Your task to perform on an android device: Set an alarm for 3pm Image 0: 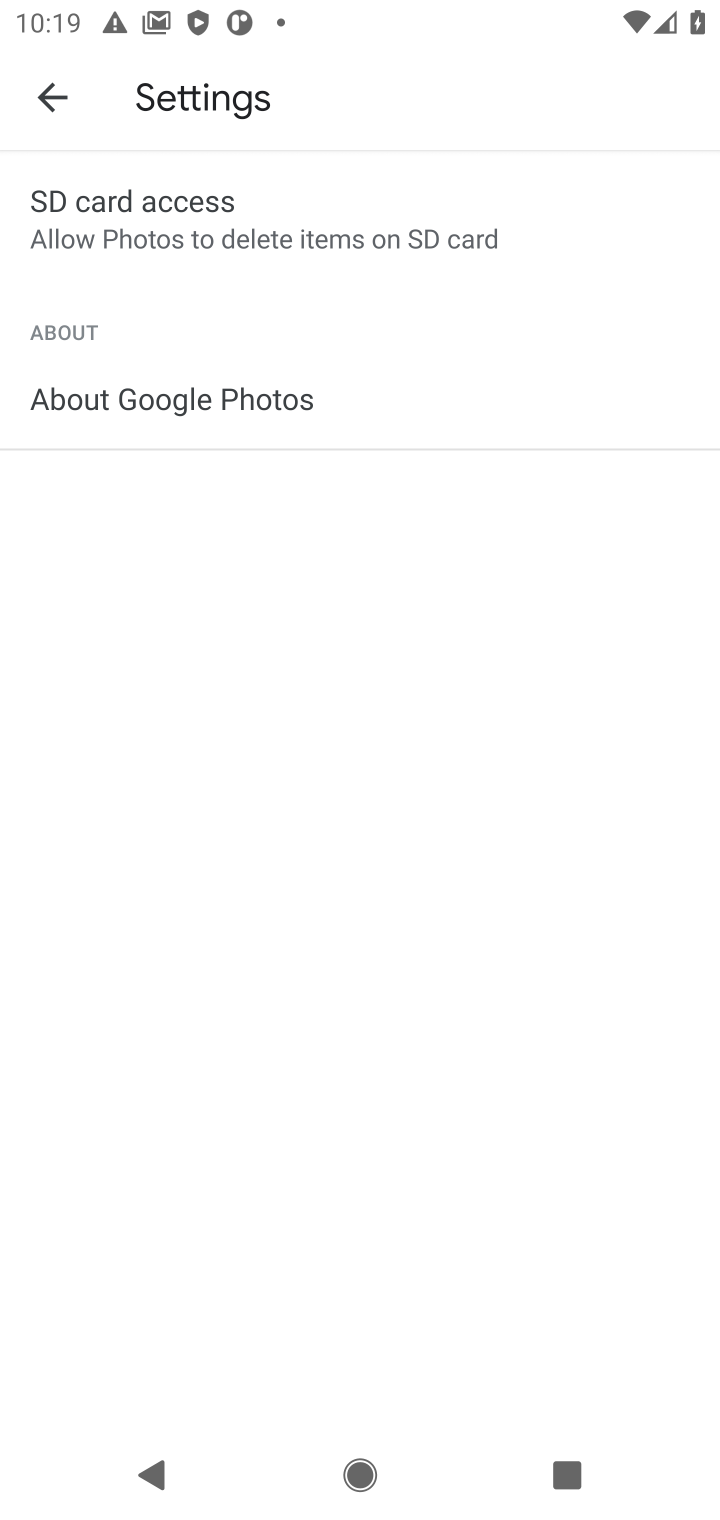
Step 0: press home button
Your task to perform on an android device: Set an alarm for 3pm Image 1: 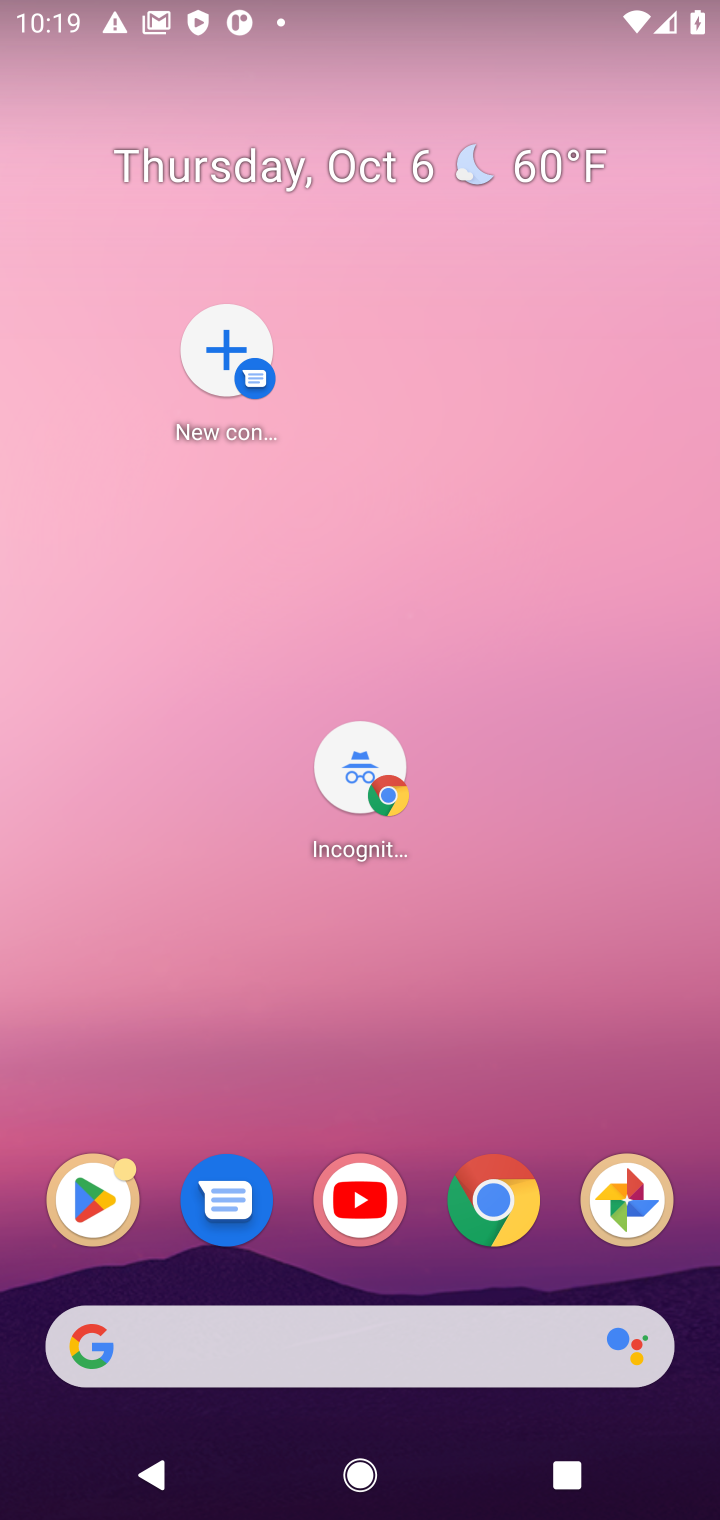
Step 1: drag from (395, 1211) to (634, 350)
Your task to perform on an android device: Set an alarm for 3pm Image 2: 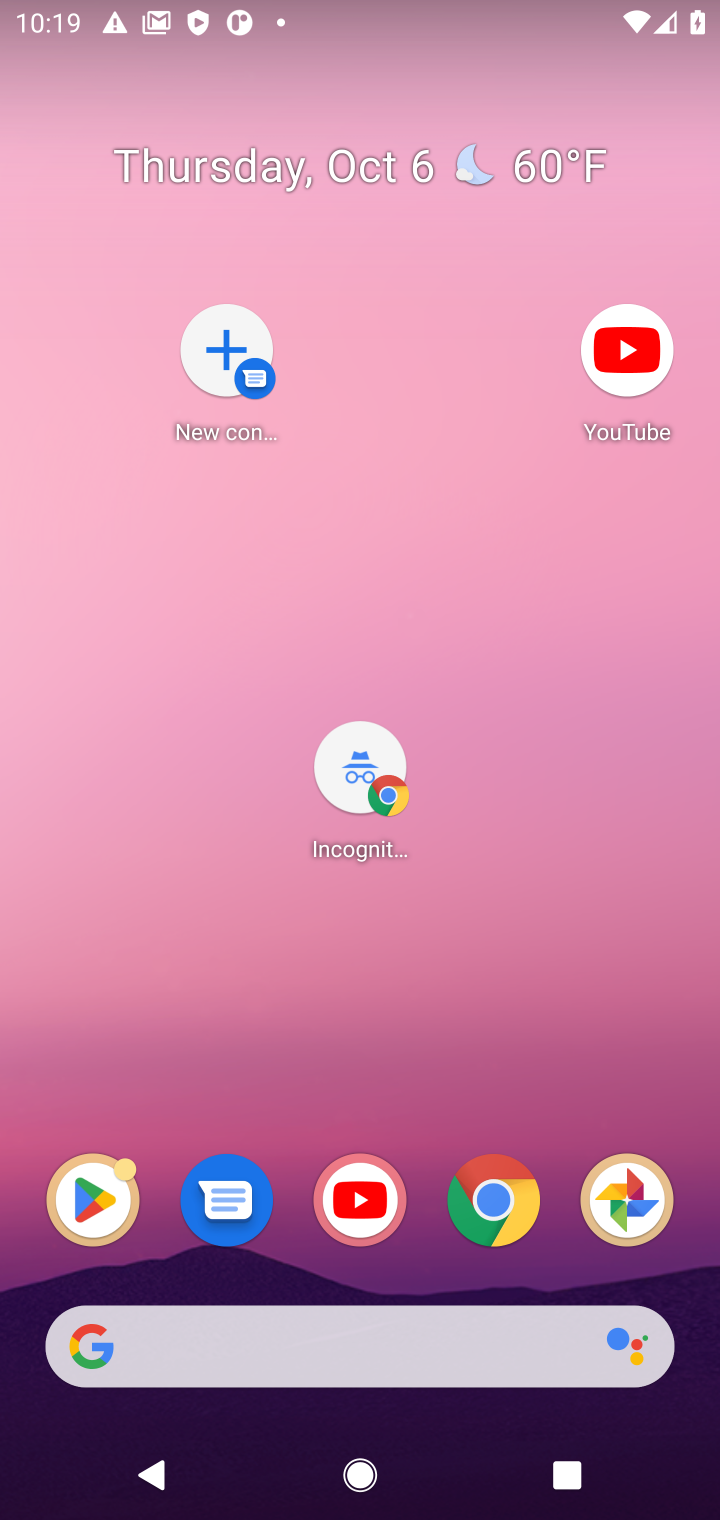
Step 2: drag from (292, 1326) to (415, 447)
Your task to perform on an android device: Set an alarm for 3pm Image 3: 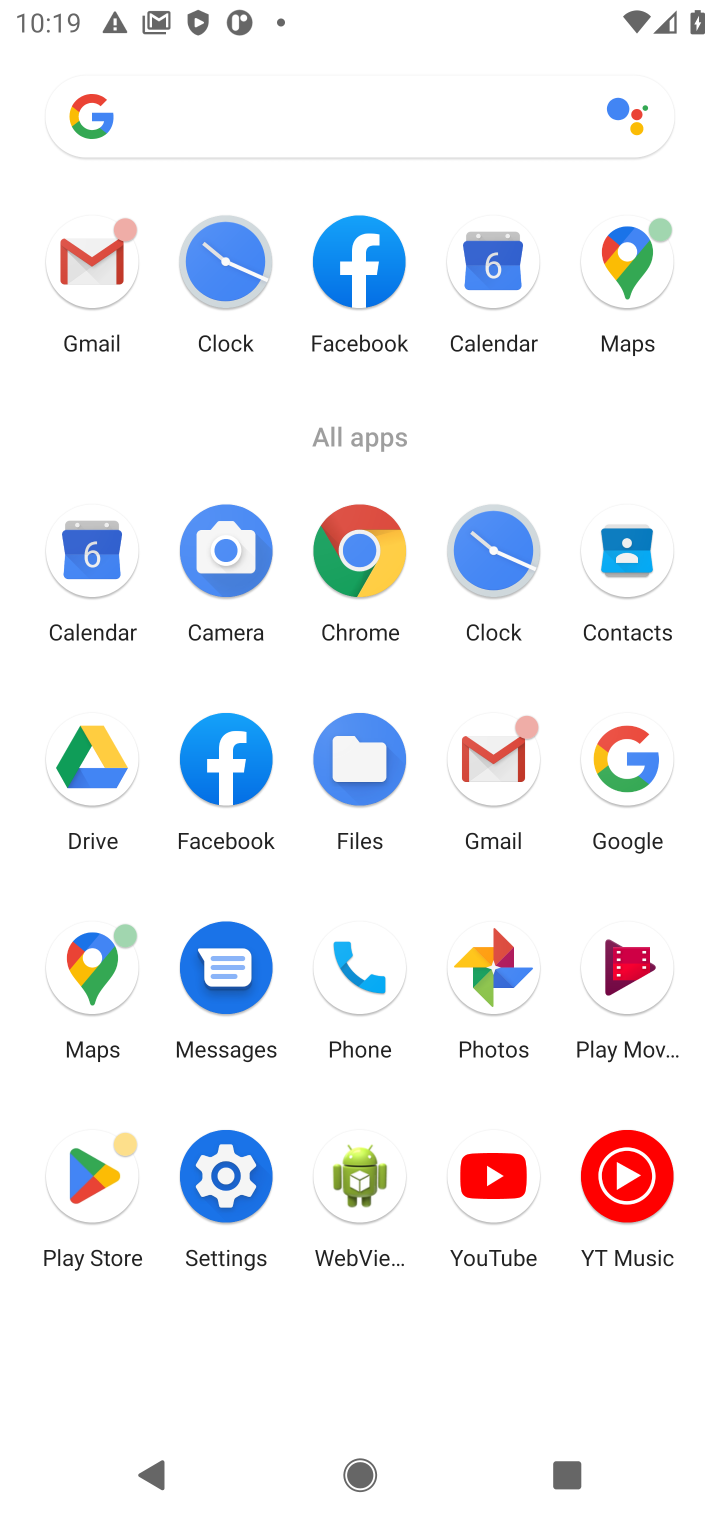
Step 3: click (518, 570)
Your task to perform on an android device: Set an alarm for 3pm Image 4: 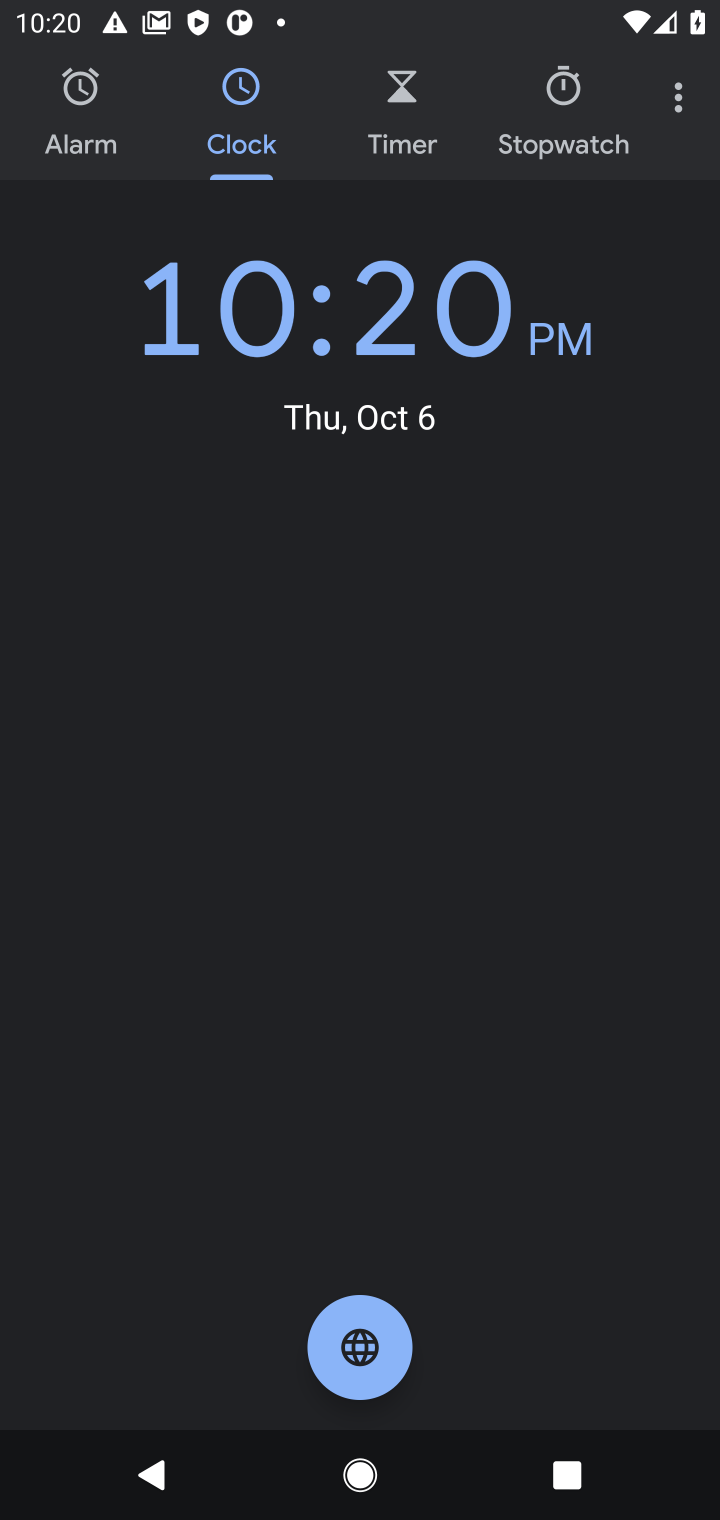
Step 4: click (114, 120)
Your task to perform on an android device: Set an alarm for 3pm Image 5: 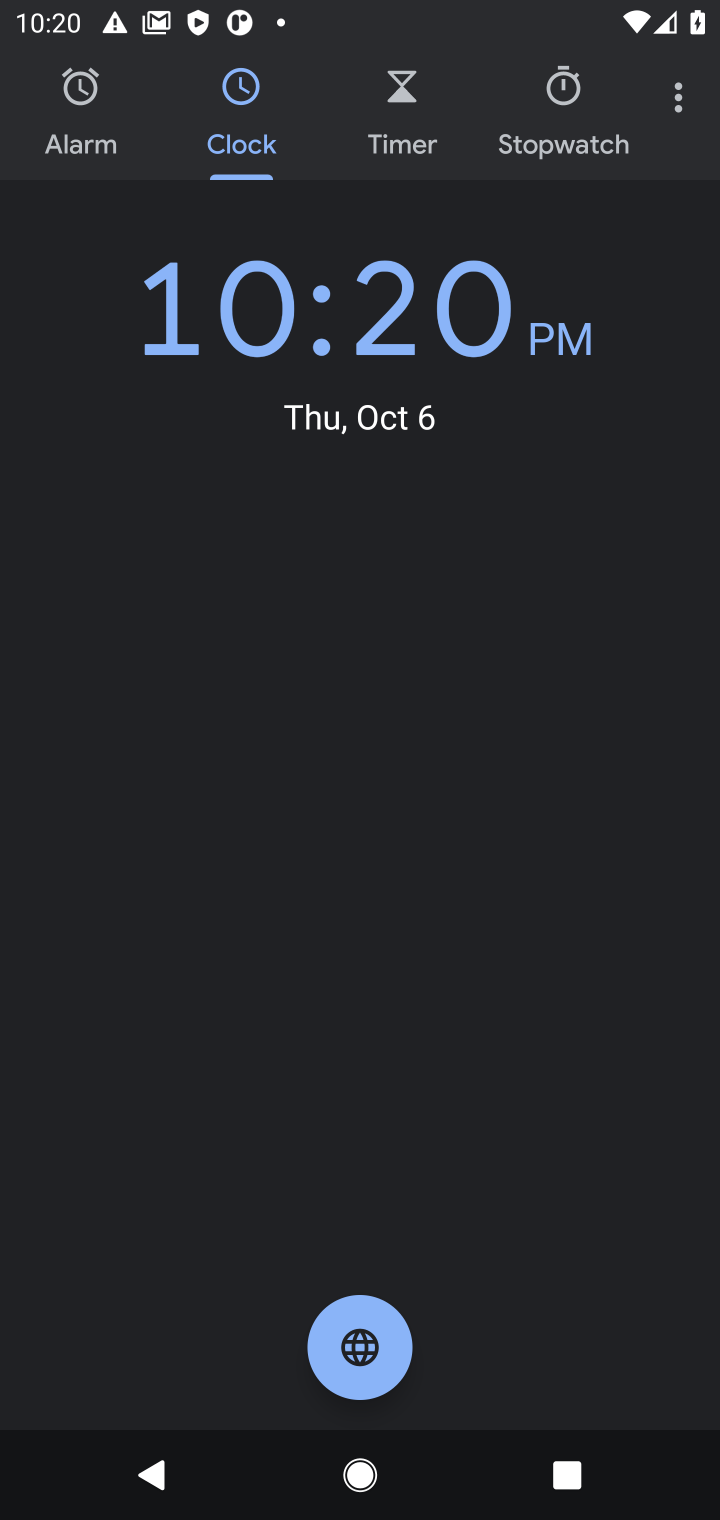
Step 5: click (102, 142)
Your task to perform on an android device: Set an alarm for 3pm Image 6: 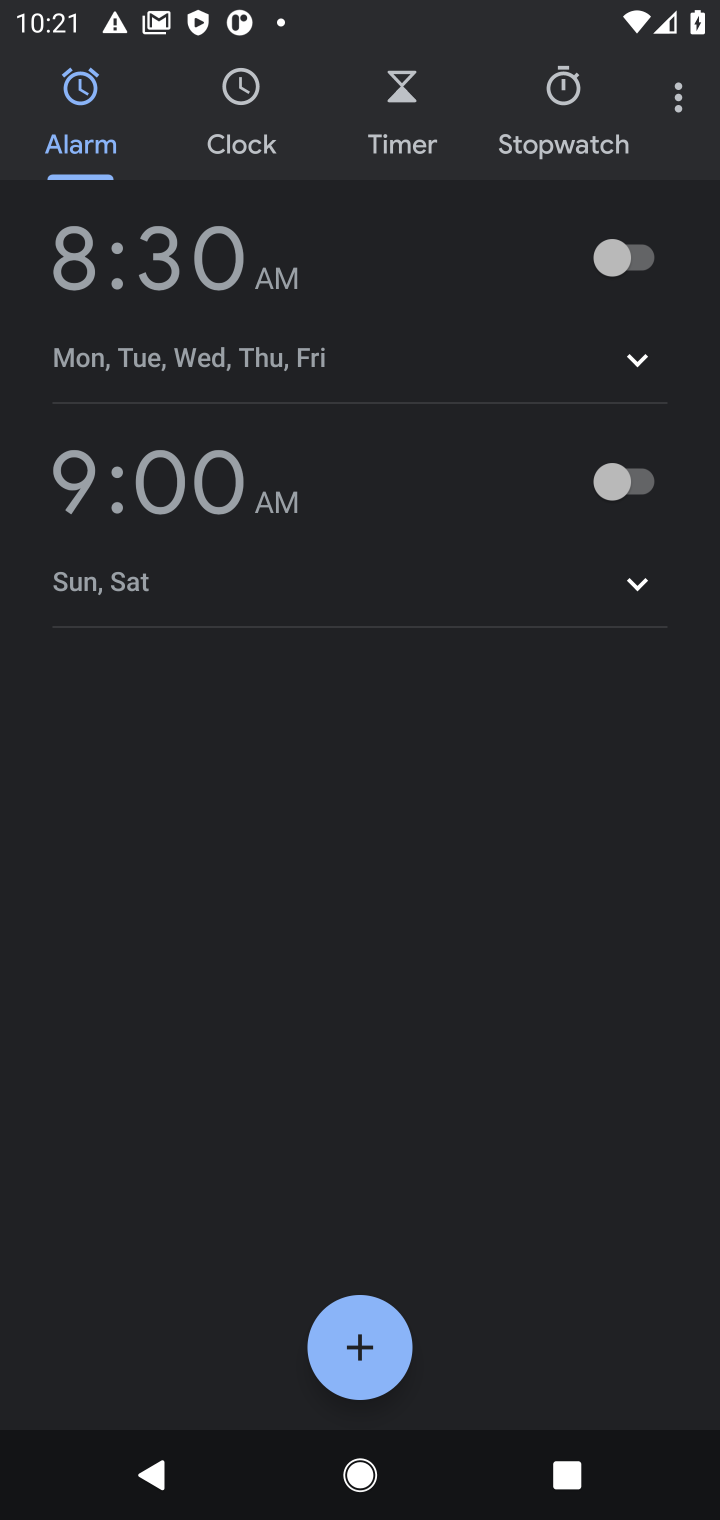
Step 6: click (349, 1333)
Your task to perform on an android device: Set an alarm for 3pm Image 7: 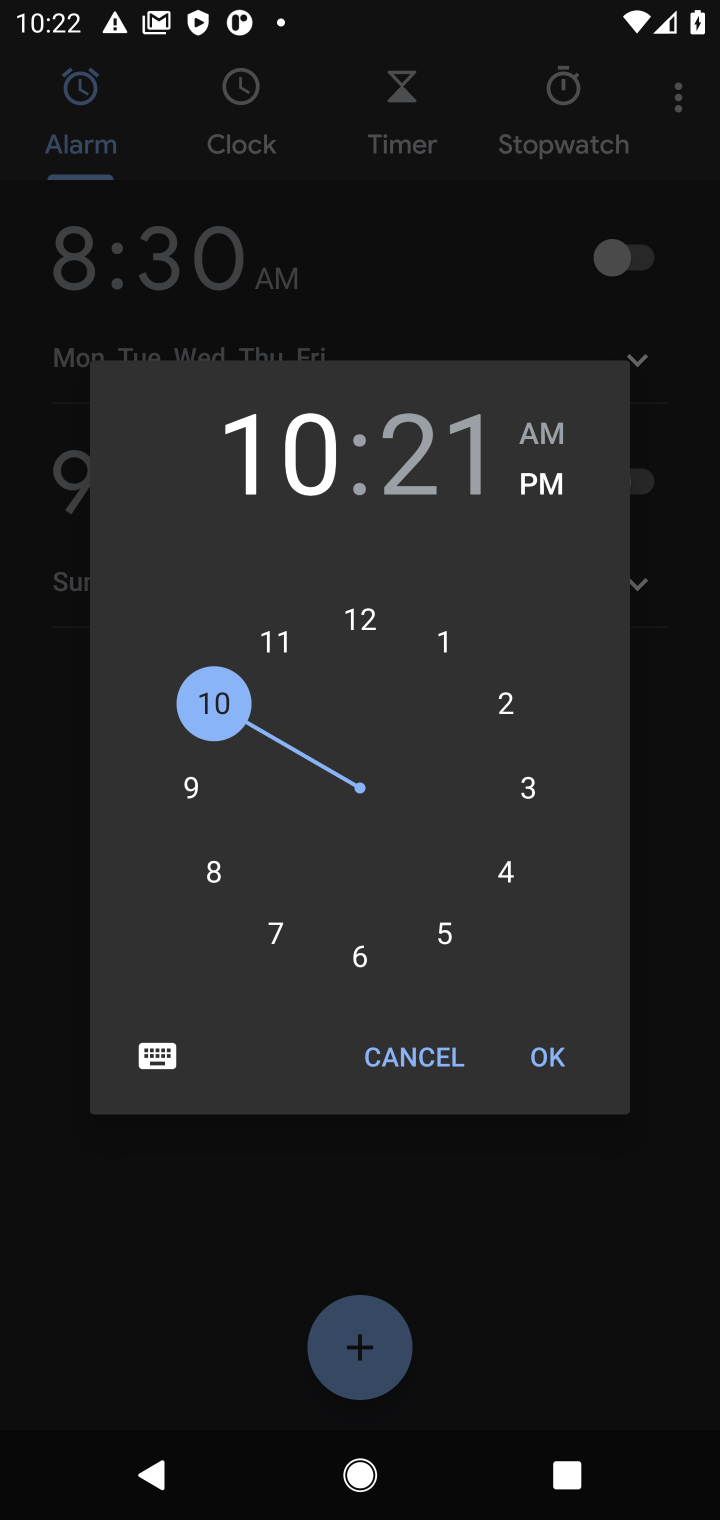
Step 7: click (536, 789)
Your task to perform on an android device: Set an alarm for 3pm Image 8: 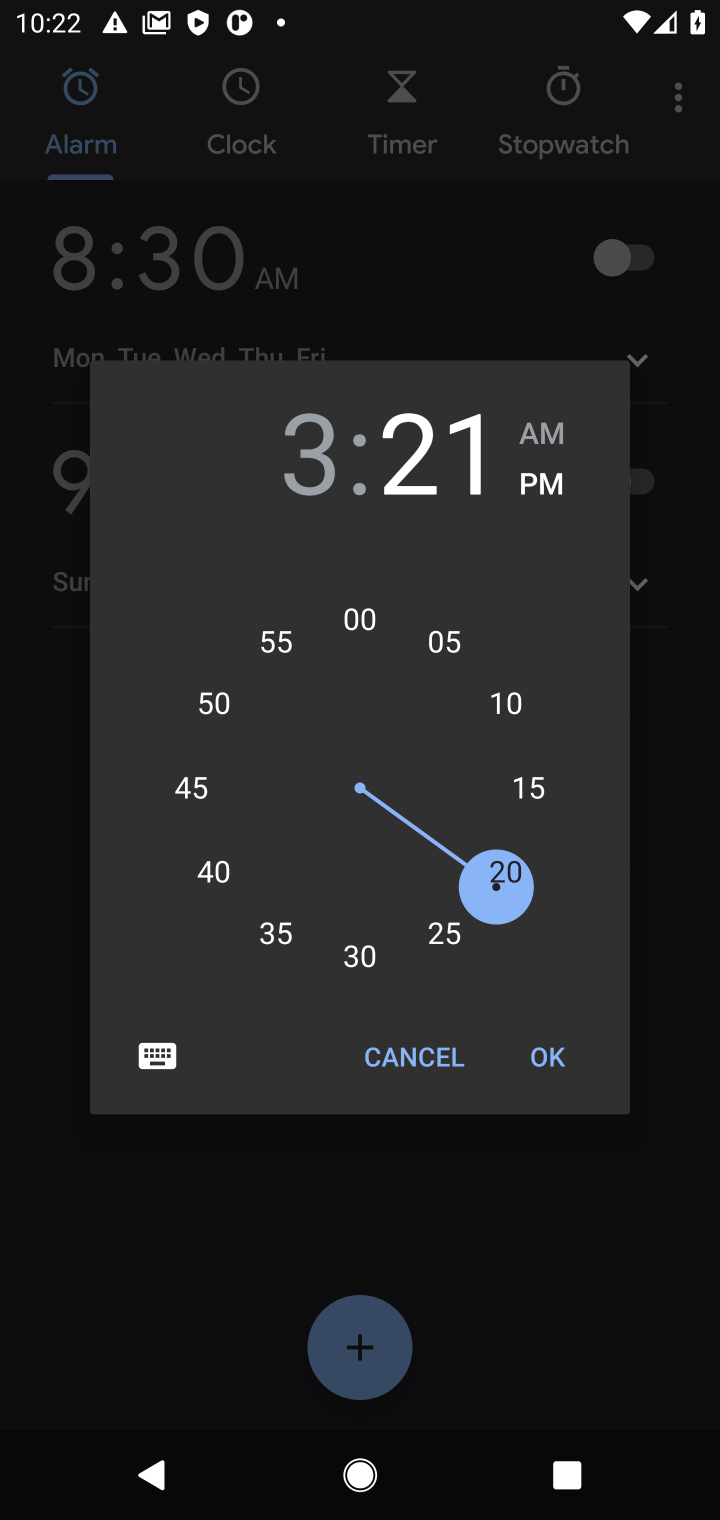
Step 8: click (383, 616)
Your task to perform on an android device: Set an alarm for 3pm Image 9: 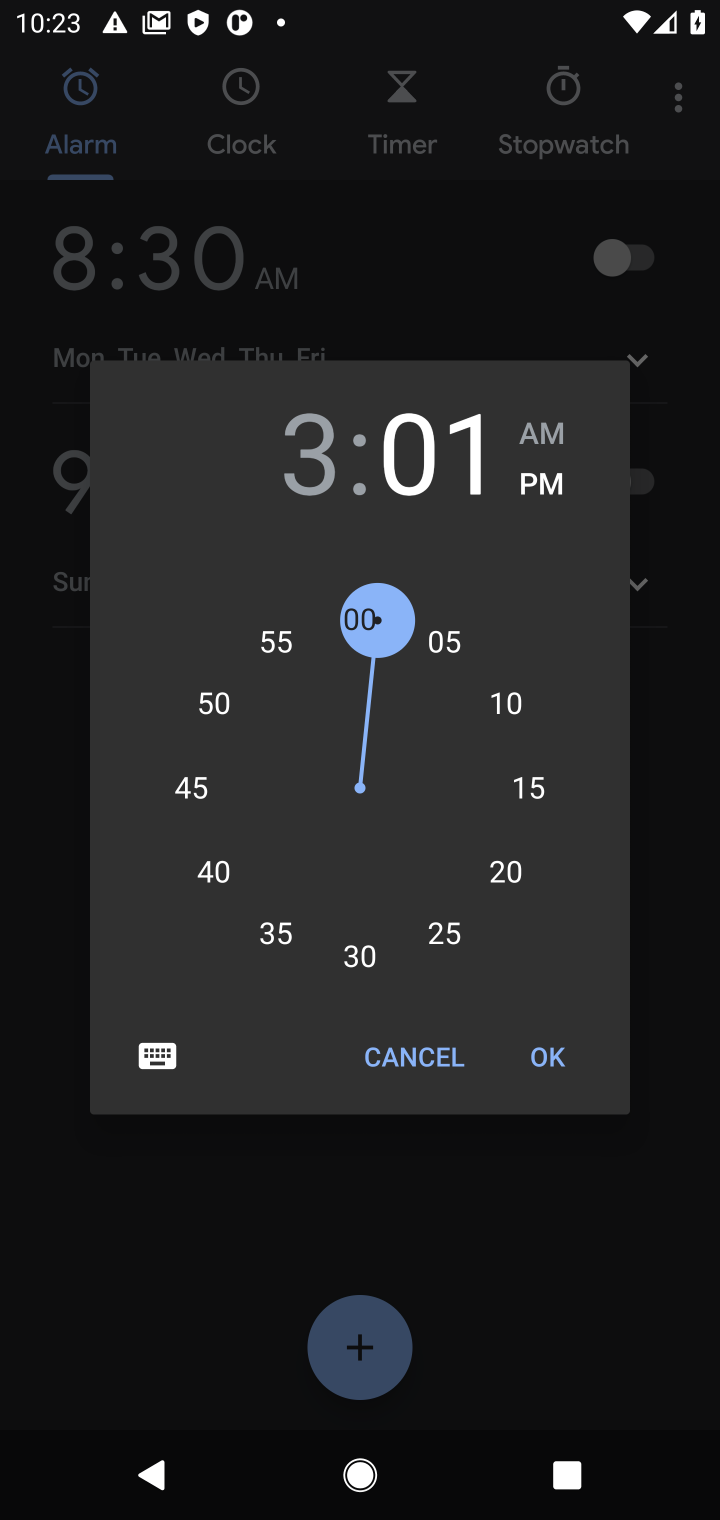
Step 9: click (361, 615)
Your task to perform on an android device: Set an alarm for 3pm Image 10: 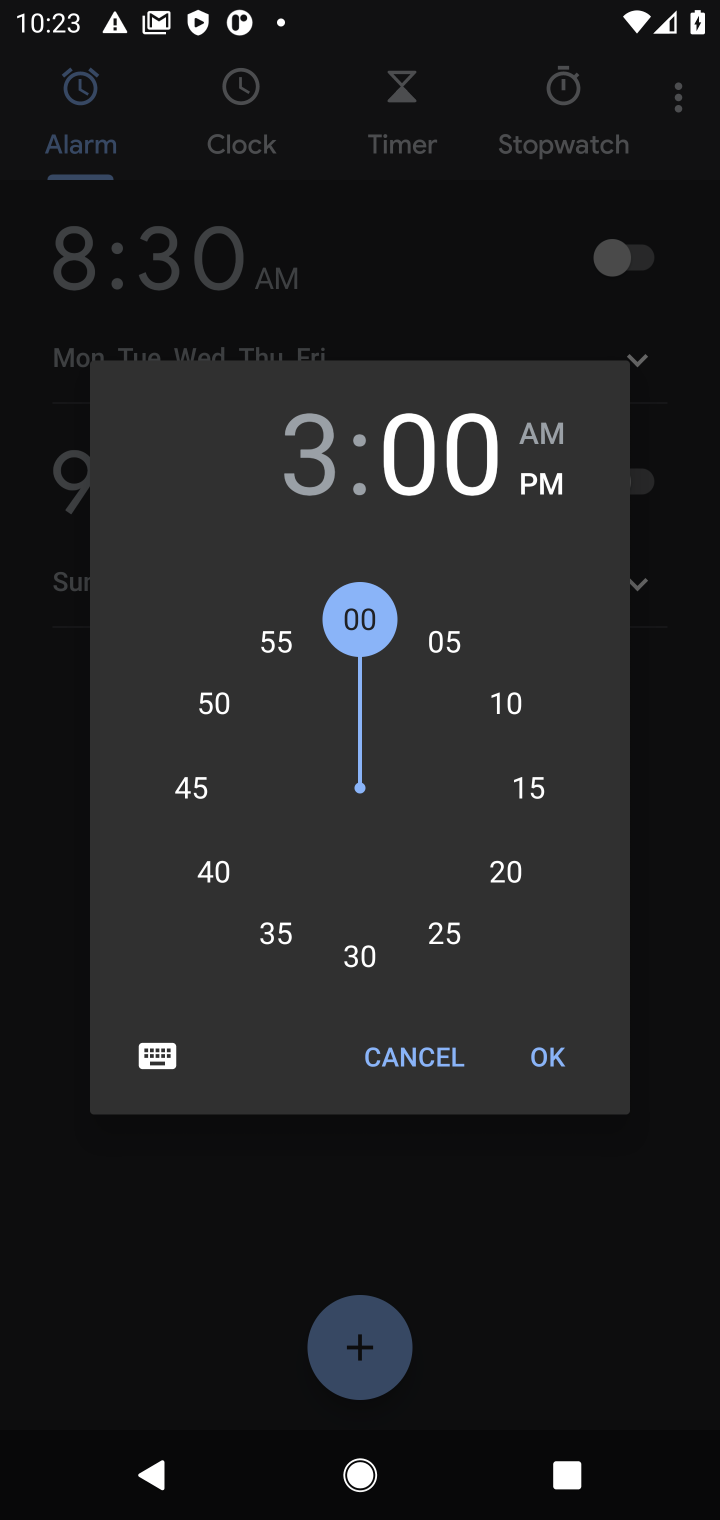
Step 10: click (545, 1050)
Your task to perform on an android device: Set an alarm for 3pm Image 11: 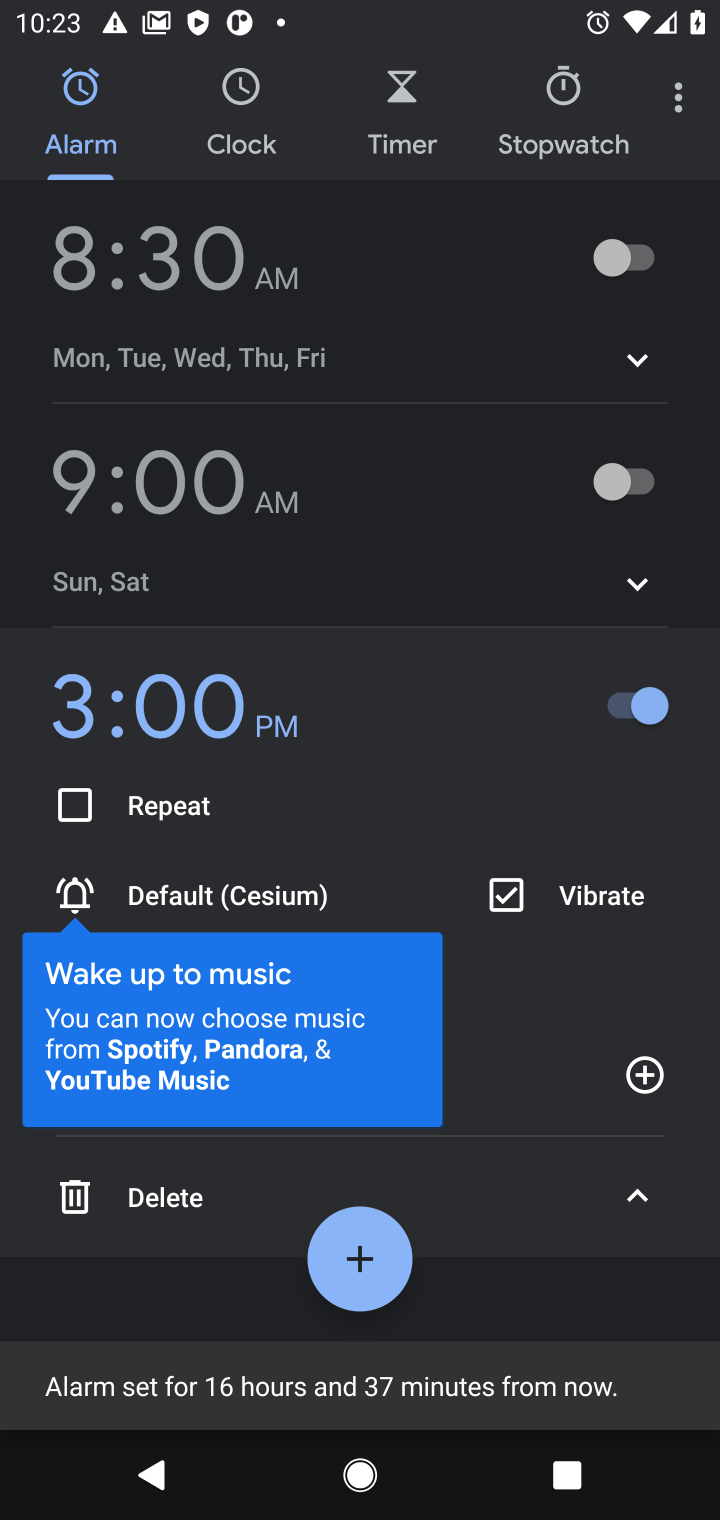
Step 11: task complete